Your task to perform on an android device: What's the weather today? Image 0: 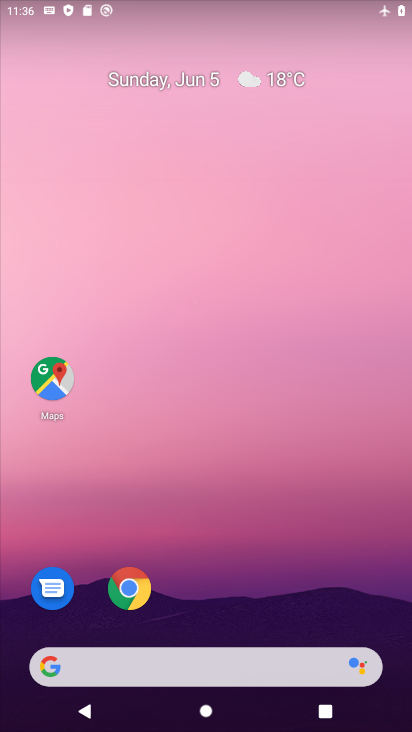
Step 0: click (299, 660)
Your task to perform on an android device: What's the weather today? Image 1: 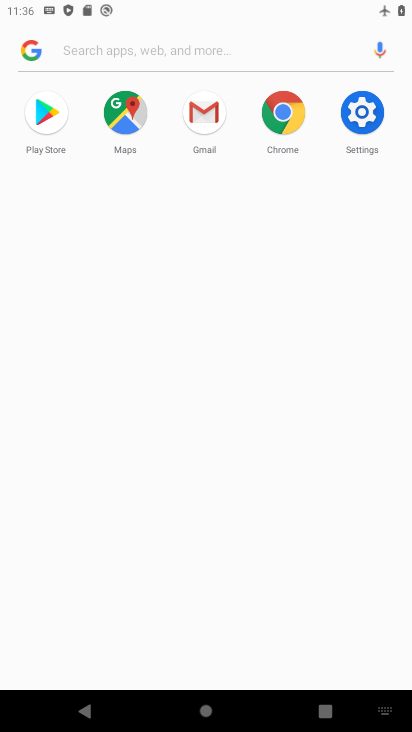
Step 1: type "What's the weather today?"
Your task to perform on an android device: What's the weather today? Image 2: 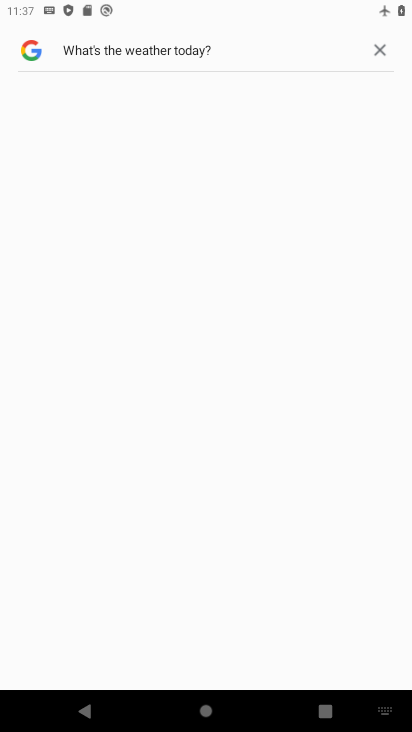
Step 2: press enter
Your task to perform on an android device: What's the weather today? Image 3: 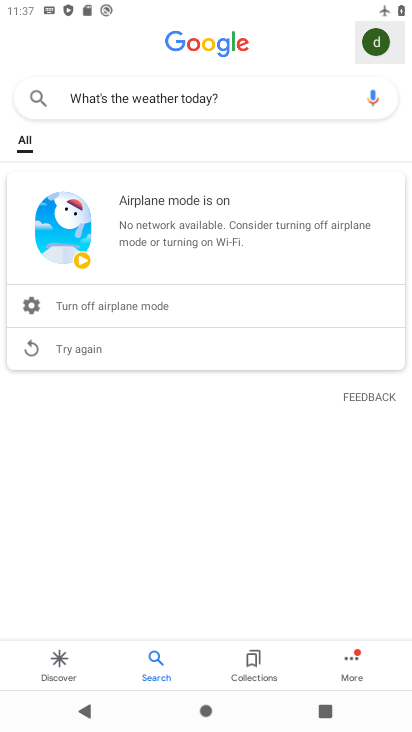
Step 3: task complete